Your task to perform on an android device: What's the news in Barbados? Image 0: 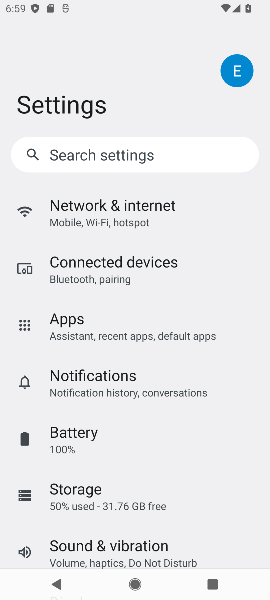
Step 0: press home button
Your task to perform on an android device: What's the news in Barbados? Image 1: 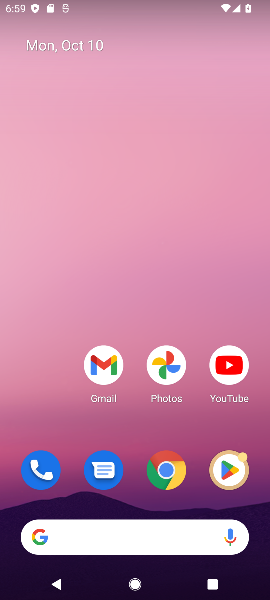
Step 1: click (165, 449)
Your task to perform on an android device: What's the news in Barbados? Image 2: 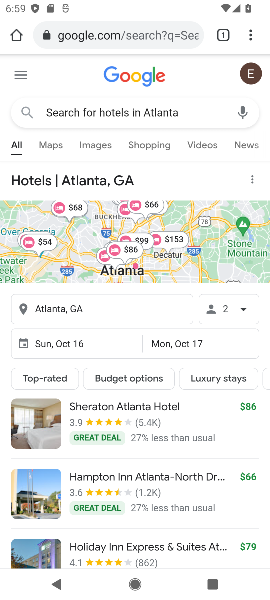
Step 2: type "What's the news in Barbados?"
Your task to perform on an android device: What's the news in Barbados? Image 3: 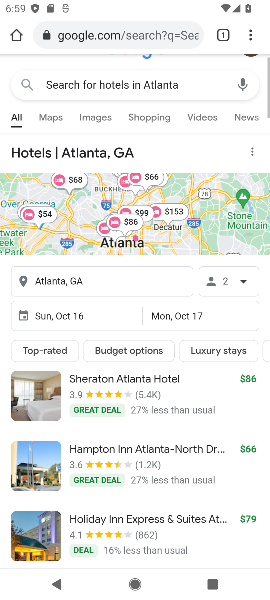
Step 3: type ""
Your task to perform on an android device: What's the news in Barbados? Image 4: 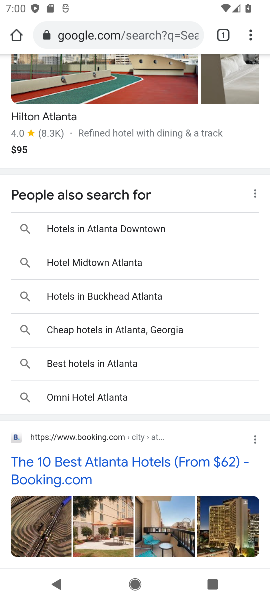
Step 4: drag from (144, 75) to (163, 492)
Your task to perform on an android device: What's the news in Barbados? Image 5: 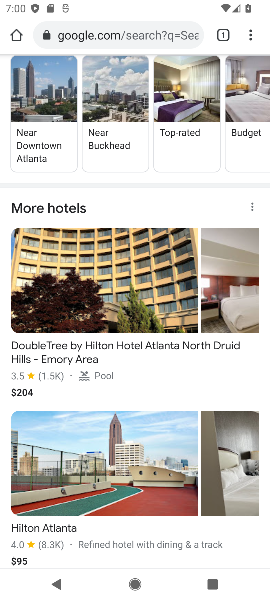
Step 5: drag from (107, 123) to (182, 543)
Your task to perform on an android device: What's the news in Barbados? Image 6: 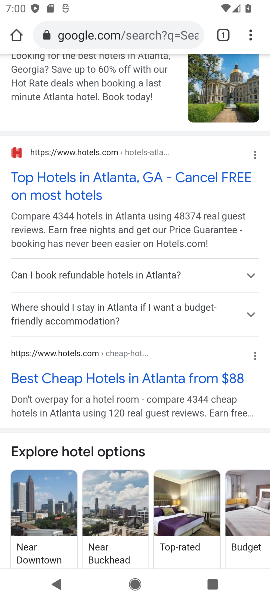
Step 6: drag from (109, 137) to (52, 595)
Your task to perform on an android device: What's the news in Barbados? Image 7: 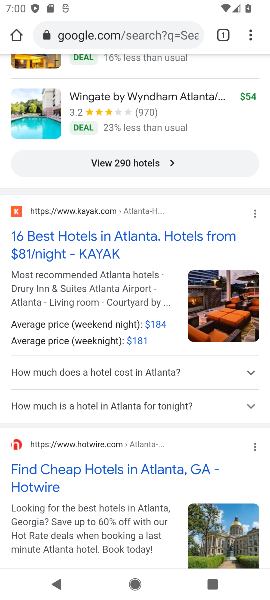
Step 7: drag from (168, 93) to (233, 537)
Your task to perform on an android device: What's the news in Barbados? Image 8: 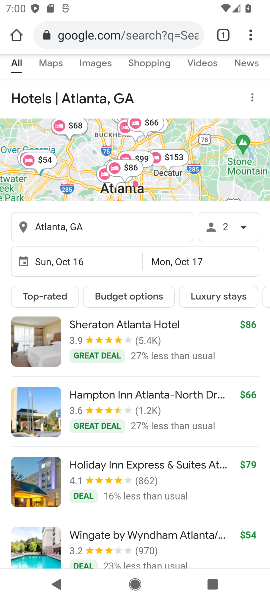
Step 8: click (118, 25)
Your task to perform on an android device: What's the news in Barbados? Image 9: 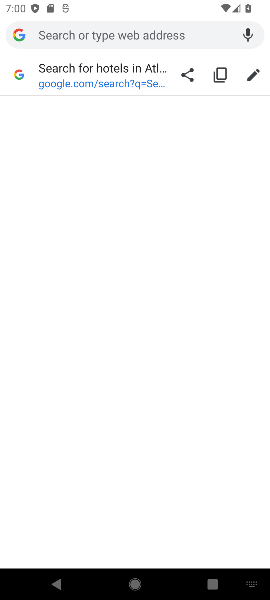
Step 9: type "What's the news in Barbados?"
Your task to perform on an android device: What's the news in Barbados? Image 10: 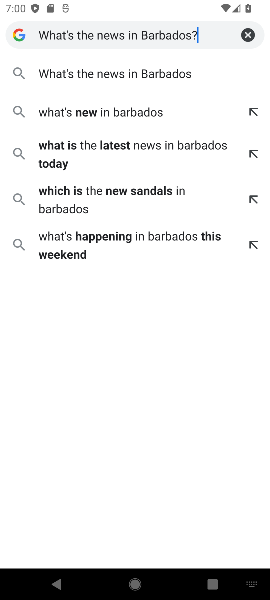
Step 10: type ""
Your task to perform on an android device: What's the news in Barbados? Image 11: 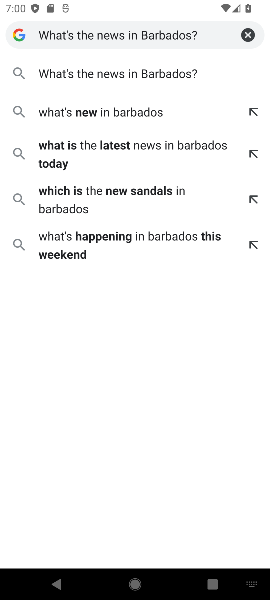
Step 11: click (158, 77)
Your task to perform on an android device: What's the news in Barbados? Image 12: 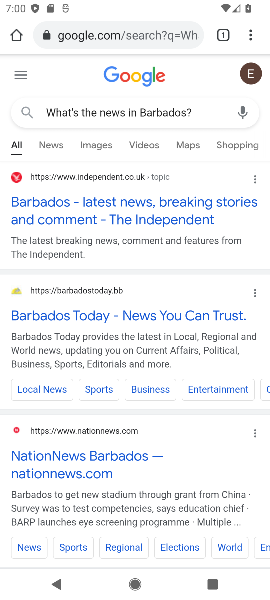
Step 12: task complete